Your task to perform on an android device: Open display settings Image 0: 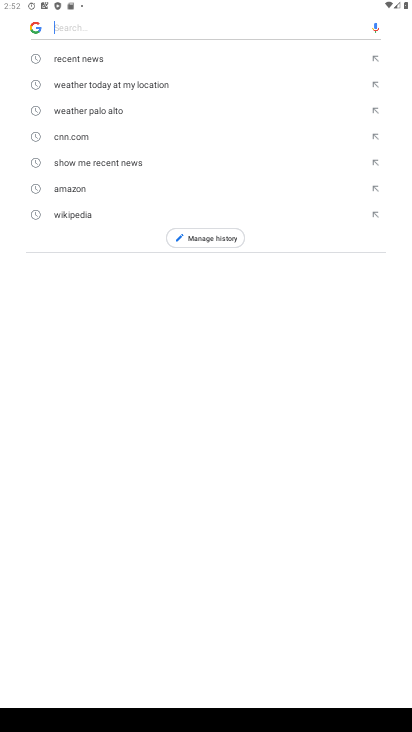
Step 0: press home button
Your task to perform on an android device: Open display settings Image 1: 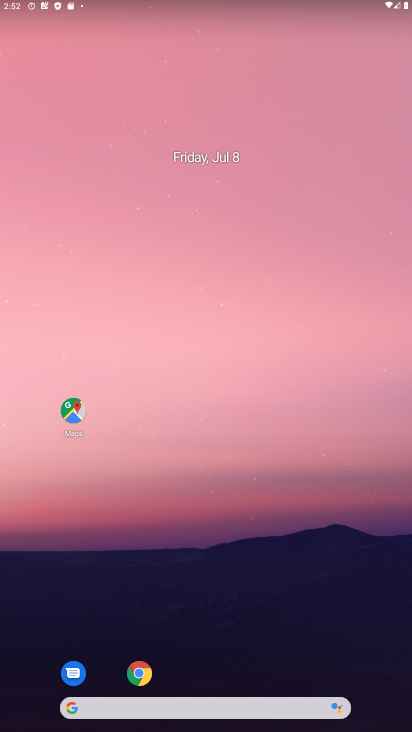
Step 1: drag from (200, 669) to (233, 299)
Your task to perform on an android device: Open display settings Image 2: 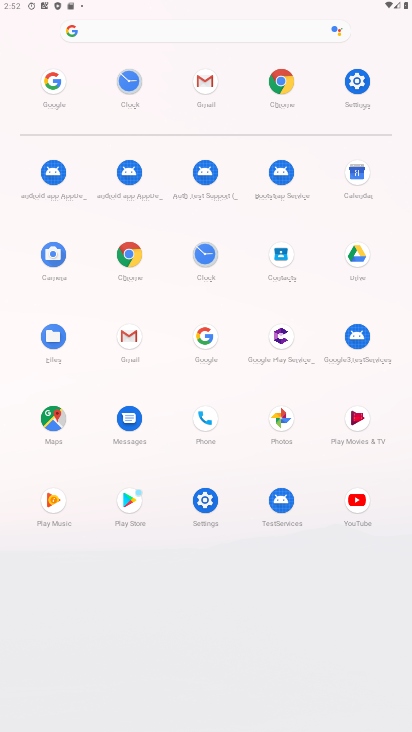
Step 2: click (210, 497)
Your task to perform on an android device: Open display settings Image 3: 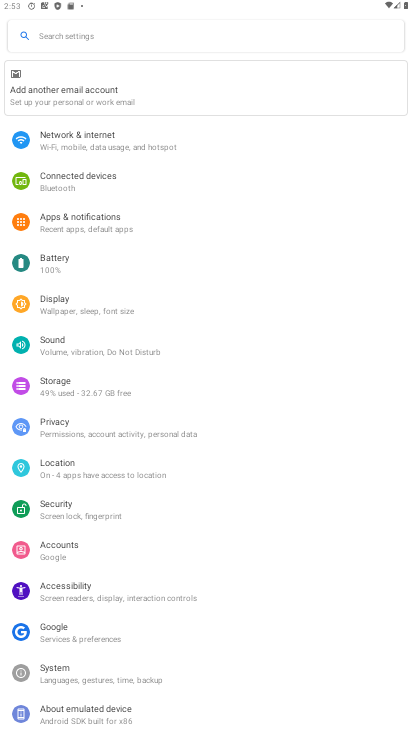
Step 3: click (97, 299)
Your task to perform on an android device: Open display settings Image 4: 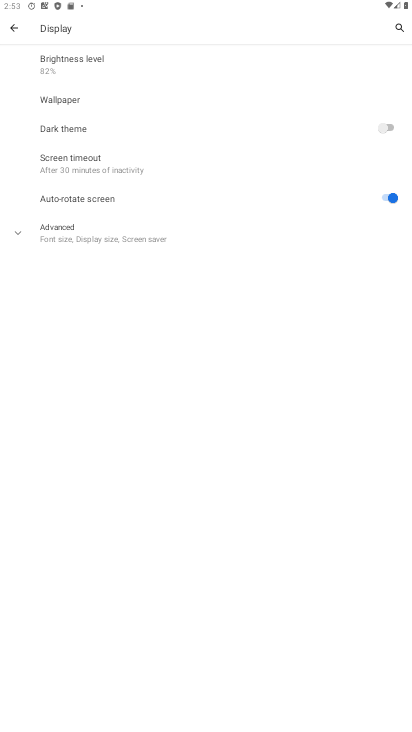
Step 4: click (82, 226)
Your task to perform on an android device: Open display settings Image 5: 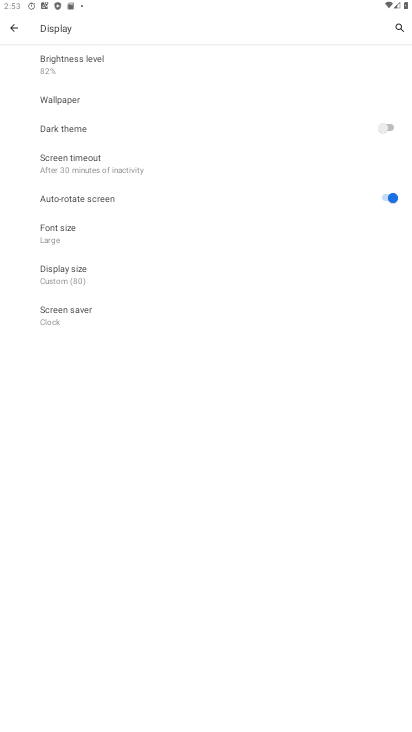
Step 5: task complete